Your task to perform on an android device: Is it going to rain this weekend? Image 0: 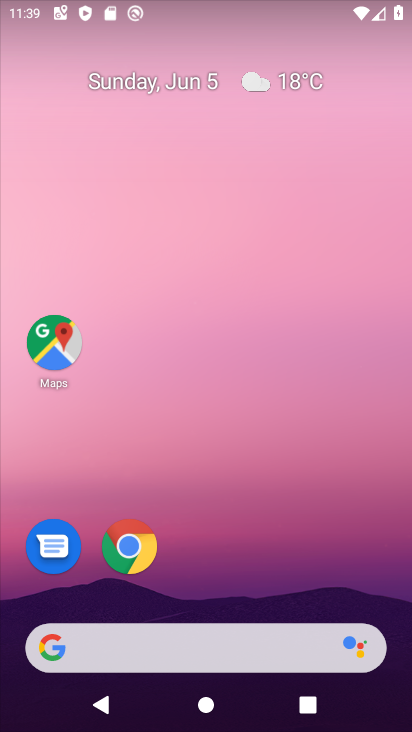
Step 0: drag from (235, 594) to (258, 284)
Your task to perform on an android device: Is it going to rain this weekend? Image 1: 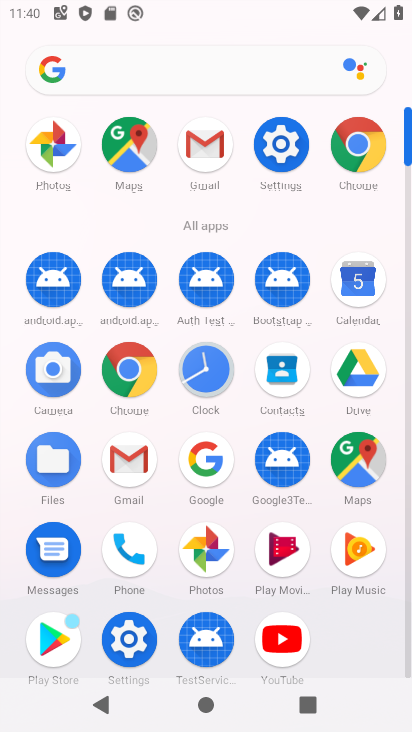
Step 1: click (367, 133)
Your task to perform on an android device: Is it going to rain this weekend? Image 2: 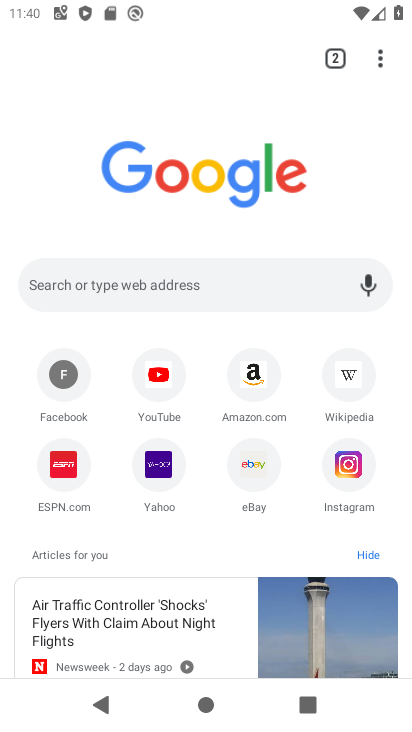
Step 2: click (180, 280)
Your task to perform on an android device: Is it going to rain this weekend? Image 3: 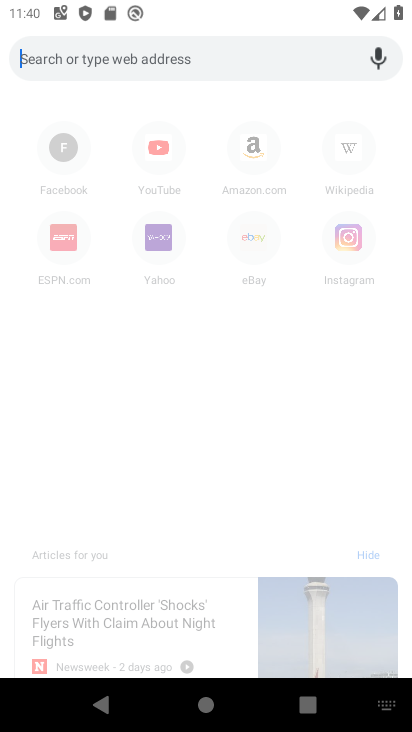
Step 3: click (230, 47)
Your task to perform on an android device: Is it going to rain this weekend? Image 4: 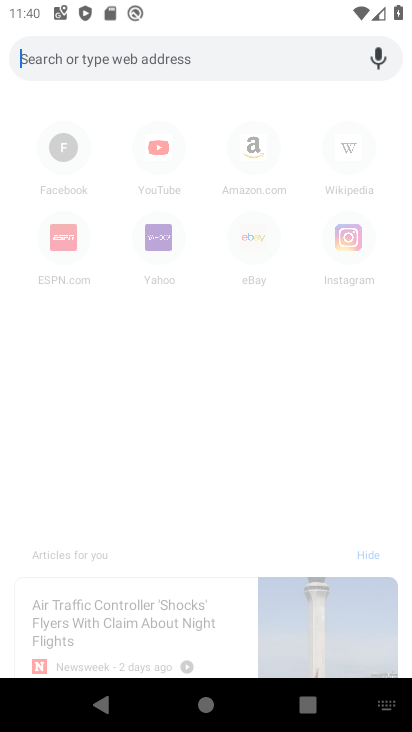
Step 4: type "Is it going to rain this weekend?"
Your task to perform on an android device: Is it going to rain this weekend? Image 5: 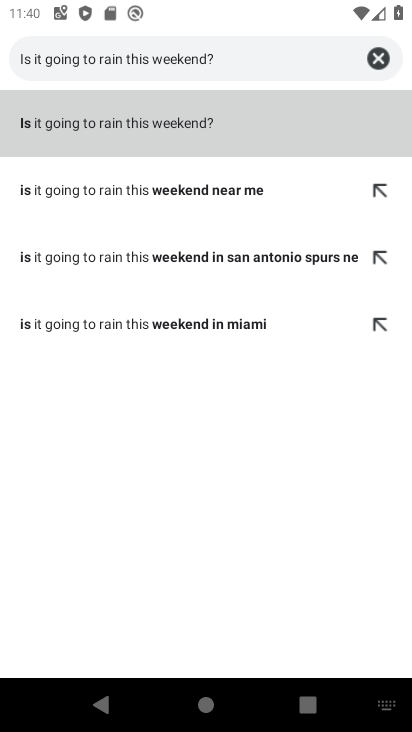
Step 5: click (173, 124)
Your task to perform on an android device: Is it going to rain this weekend? Image 6: 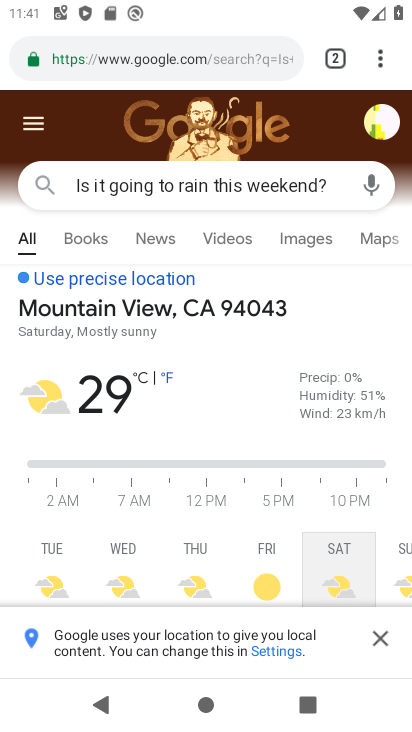
Step 6: task complete